Your task to perform on an android device: set the stopwatch Image 0: 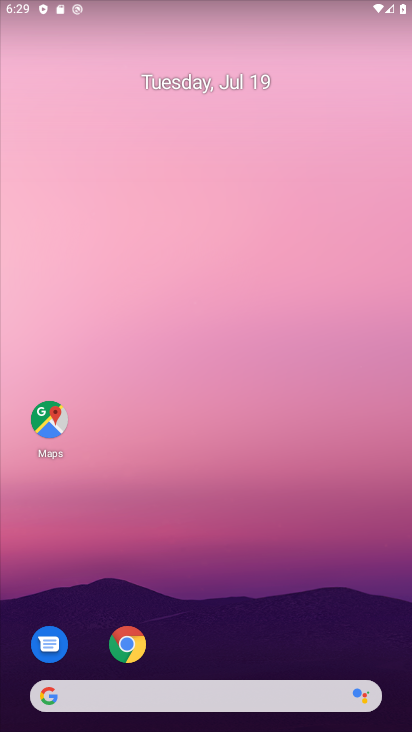
Step 0: drag from (241, 574) to (311, 190)
Your task to perform on an android device: set the stopwatch Image 1: 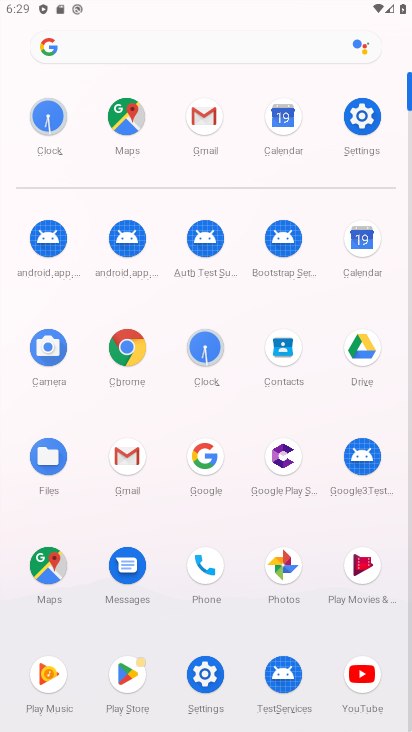
Step 1: click (199, 344)
Your task to perform on an android device: set the stopwatch Image 2: 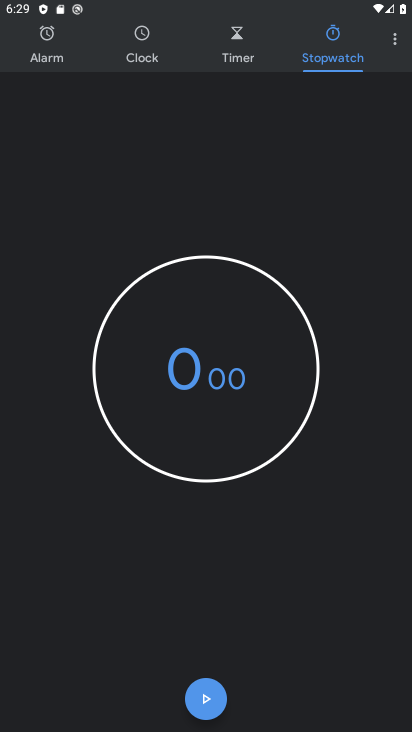
Step 2: click (336, 38)
Your task to perform on an android device: set the stopwatch Image 3: 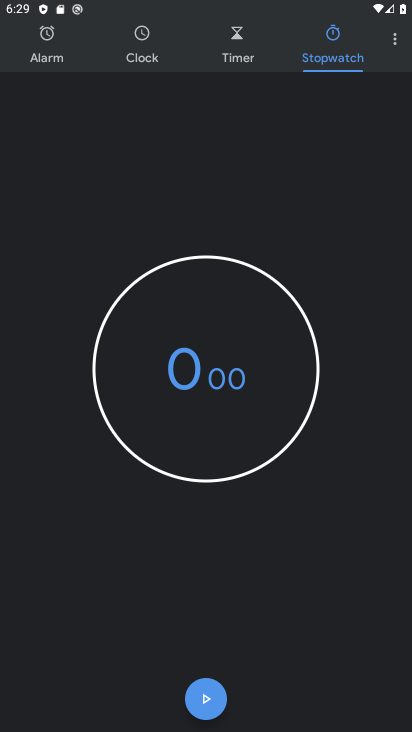
Step 3: task complete